Your task to perform on an android device: clear history in the chrome app Image 0: 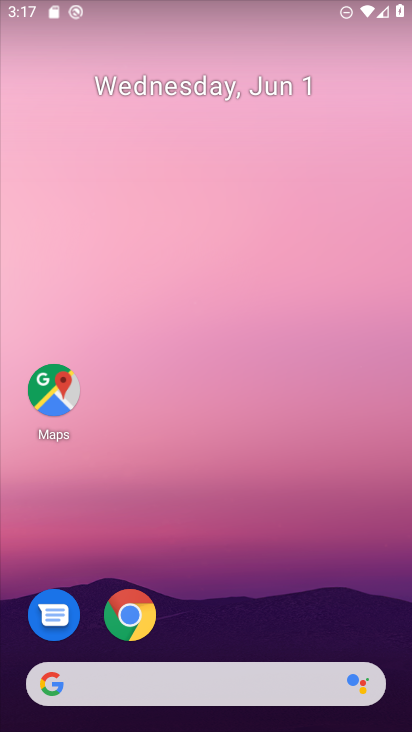
Step 0: press home button
Your task to perform on an android device: clear history in the chrome app Image 1: 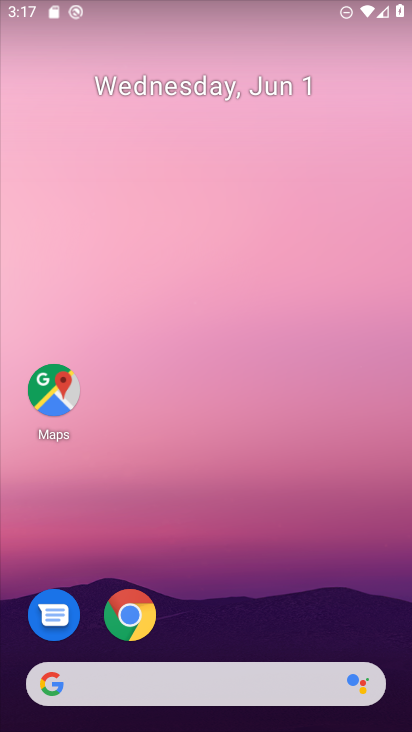
Step 1: click (127, 609)
Your task to perform on an android device: clear history in the chrome app Image 2: 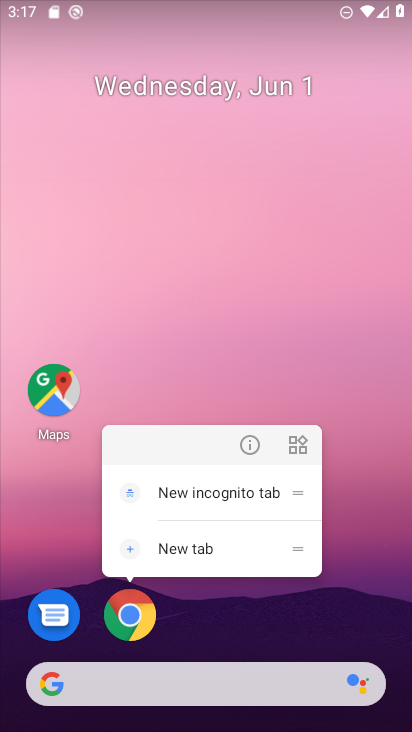
Step 2: click (127, 609)
Your task to perform on an android device: clear history in the chrome app Image 3: 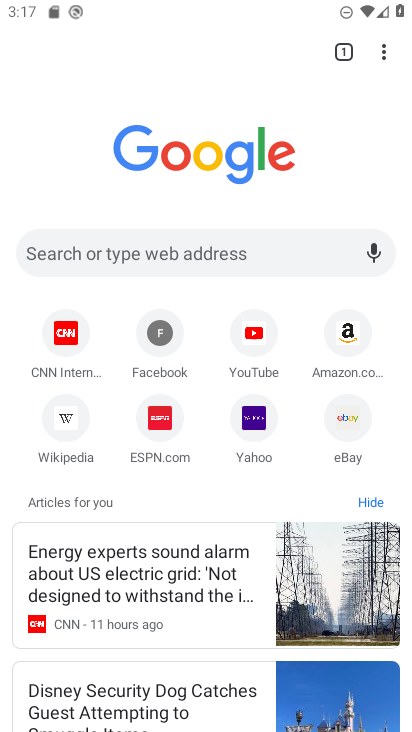
Step 3: click (381, 49)
Your task to perform on an android device: clear history in the chrome app Image 4: 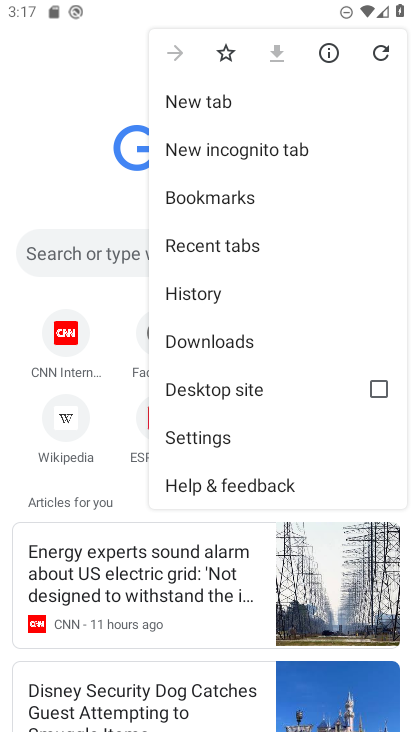
Step 4: click (235, 291)
Your task to perform on an android device: clear history in the chrome app Image 5: 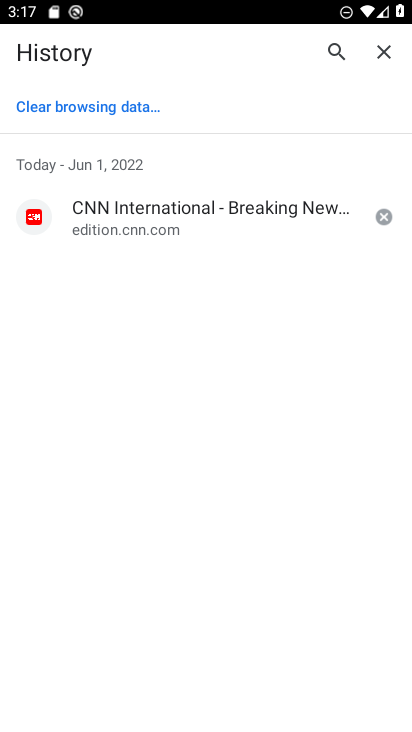
Step 5: click (77, 105)
Your task to perform on an android device: clear history in the chrome app Image 6: 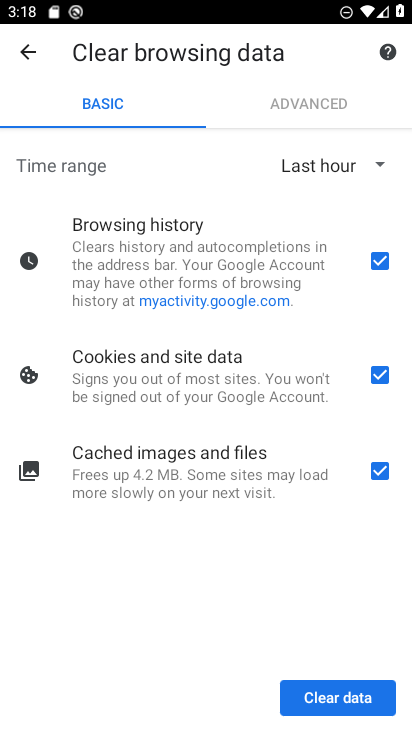
Step 6: click (334, 693)
Your task to perform on an android device: clear history in the chrome app Image 7: 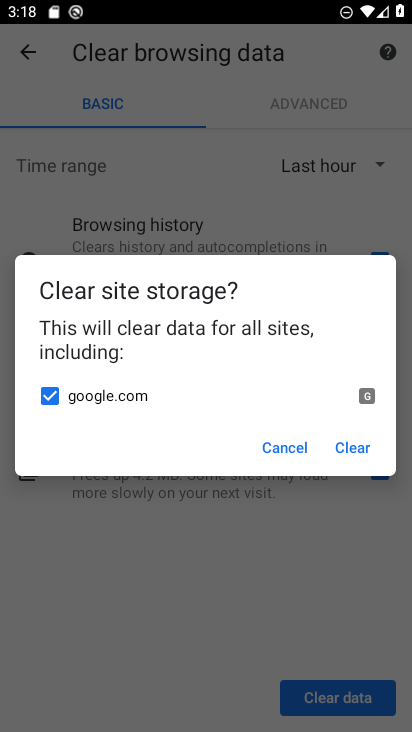
Step 7: click (356, 442)
Your task to perform on an android device: clear history in the chrome app Image 8: 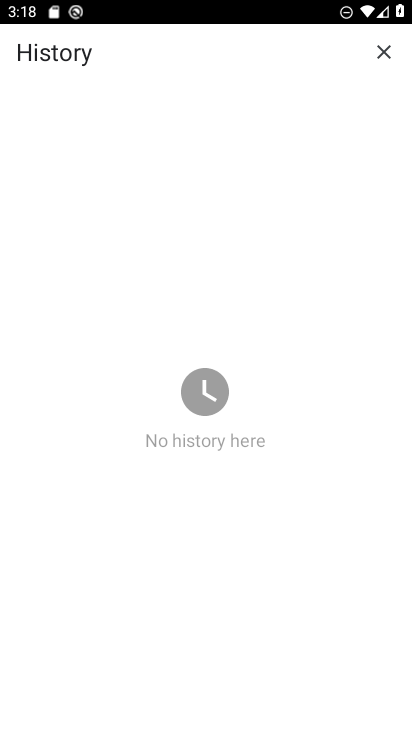
Step 8: task complete